Your task to perform on an android device: Go to Google maps Image 0: 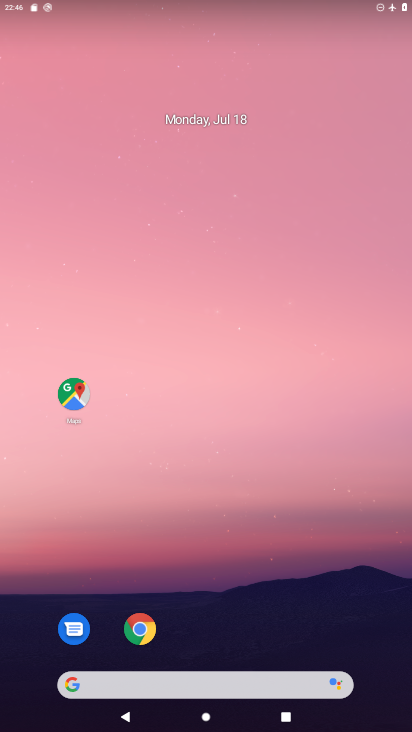
Step 0: drag from (275, 590) to (273, 42)
Your task to perform on an android device: Go to Google maps Image 1: 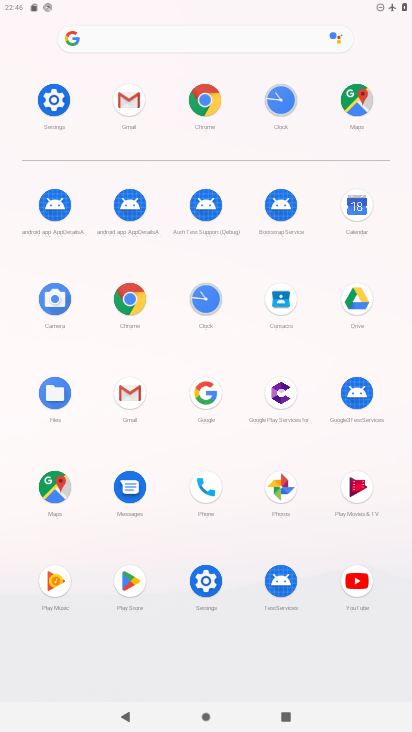
Step 1: click (358, 97)
Your task to perform on an android device: Go to Google maps Image 2: 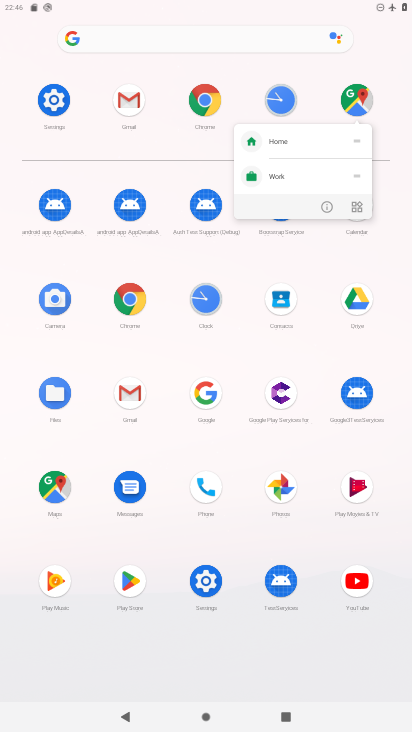
Step 2: click (366, 99)
Your task to perform on an android device: Go to Google maps Image 3: 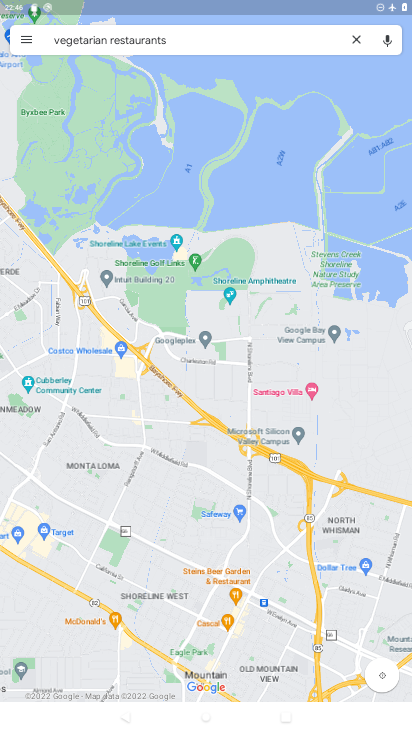
Step 3: task complete